Your task to perform on an android device: What's on my calendar today? Image 0: 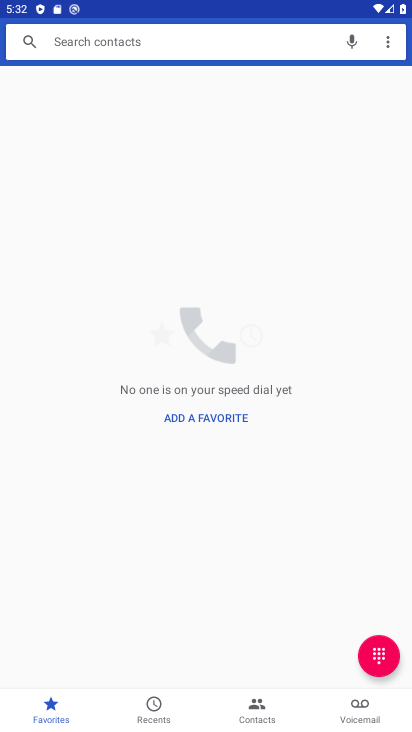
Step 0: press home button
Your task to perform on an android device: What's on my calendar today? Image 1: 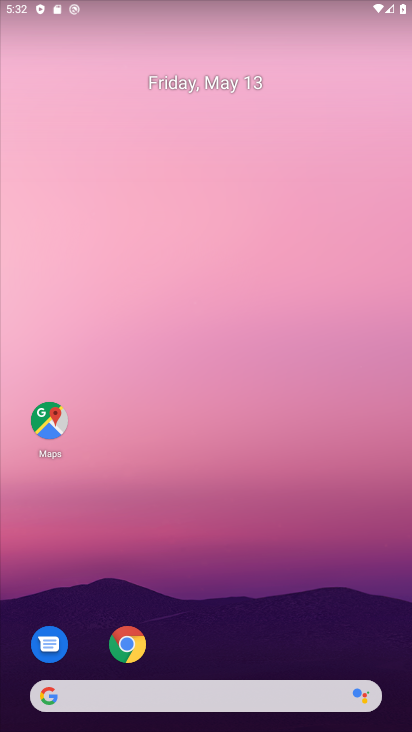
Step 1: drag from (244, 586) to (142, 94)
Your task to perform on an android device: What's on my calendar today? Image 2: 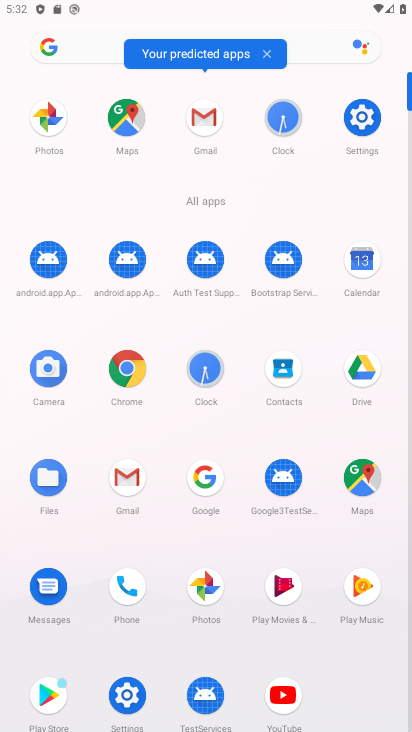
Step 2: click (359, 252)
Your task to perform on an android device: What's on my calendar today? Image 3: 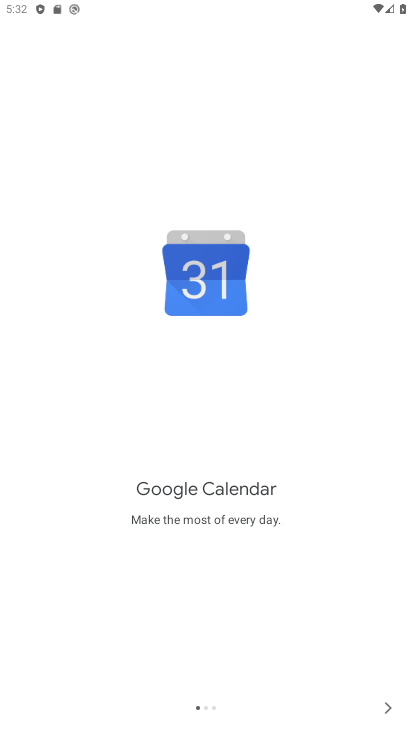
Step 3: click (383, 712)
Your task to perform on an android device: What's on my calendar today? Image 4: 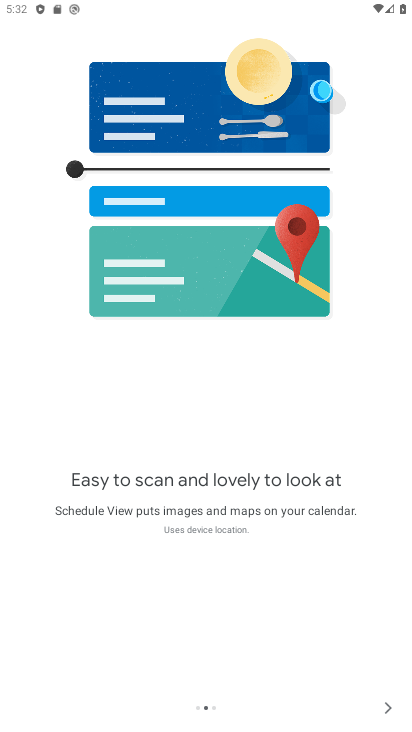
Step 4: click (383, 712)
Your task to perform on an android device: What's on my calendar today? Image 5: 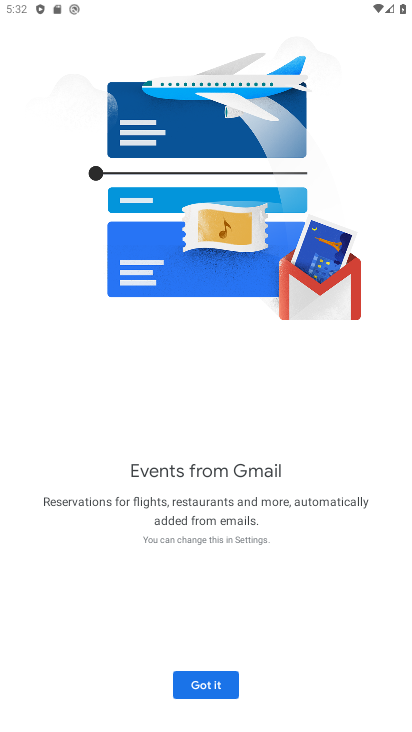
Step 5: click (204, 682)
Your task to perform on an android device: What's on my calendar today? Image 6: 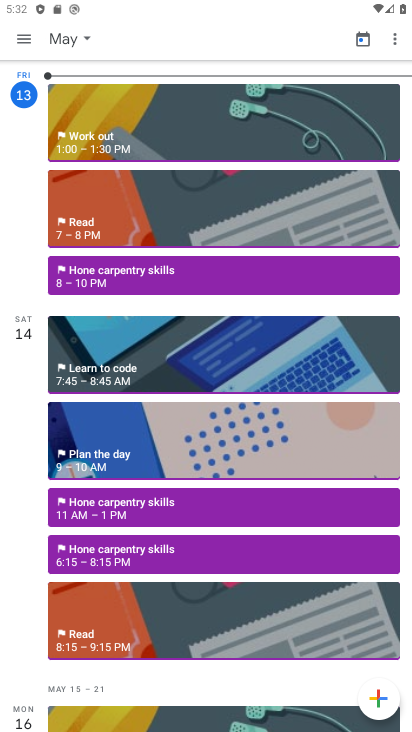
Step 6: click (83, 35)
Your task to perform on an android device: What's on my calendar today? Image 7: 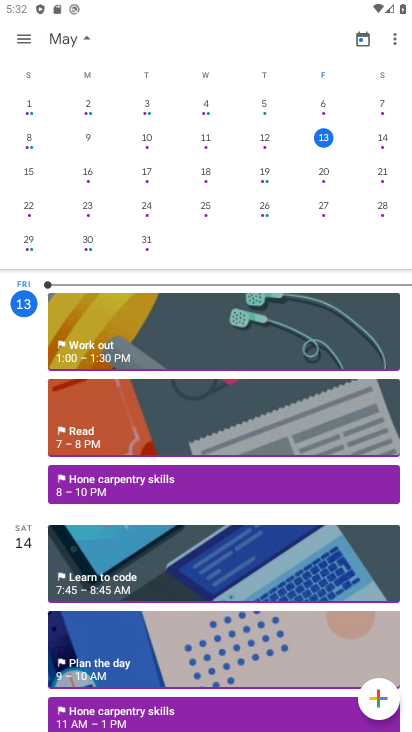
Step 7: click (265, 137)
Your task to perform on an android device: What's on my calendar today? Image 8: 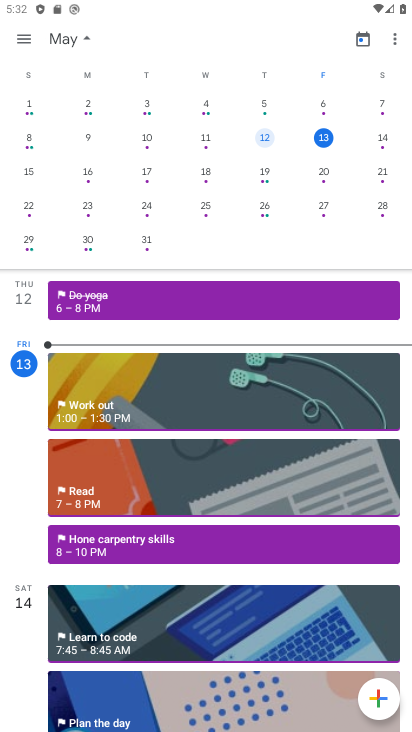
Step 8: click (261, 142)
Your task to perform on an android device: What's on my calendar today? Image 9: 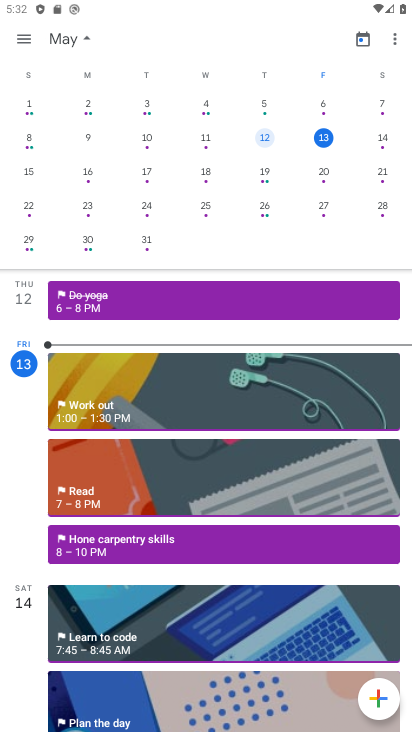
Step 9: click (261, 142)
Your task to perform on an android device: What's on my calendar today? Image 10: 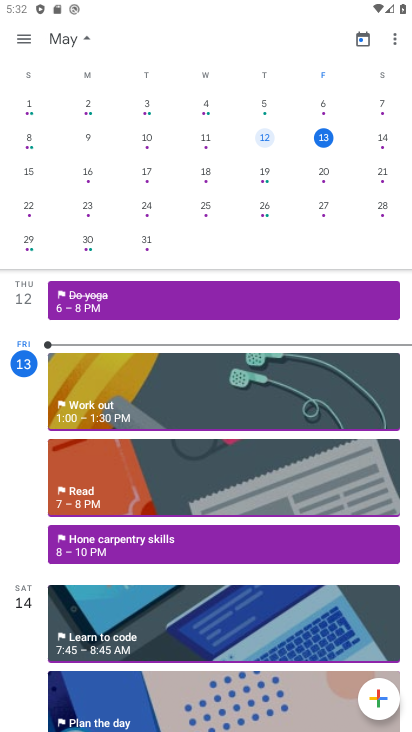
Step 10: click (262, 139)
Your task to perform on an android device: What's on my calendar today? Image 11: 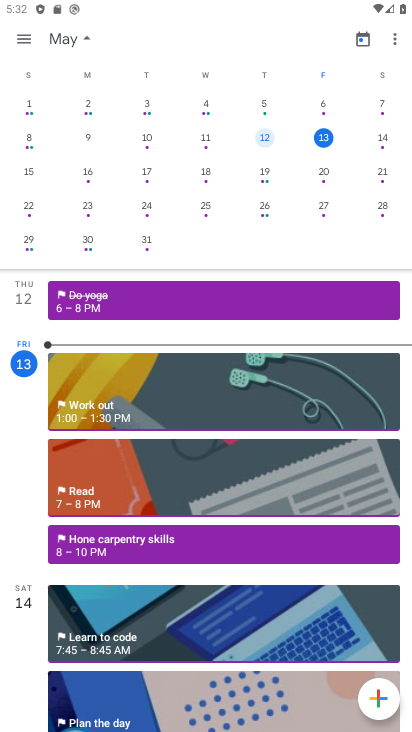
Step 11: task complete